Your task to perform on an android device: toggle priority inbox in the gmail app Image 0: 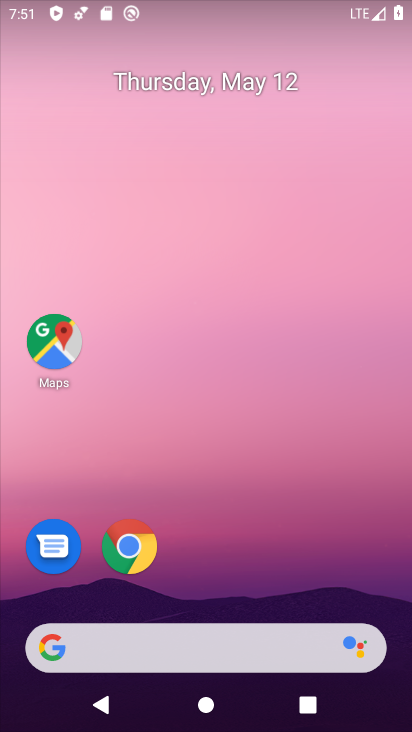
Step 0: drag from (250, 579) to (160, 5)
Your task to perform on an android device: toggle priority inbox in the gmail app Image 1: 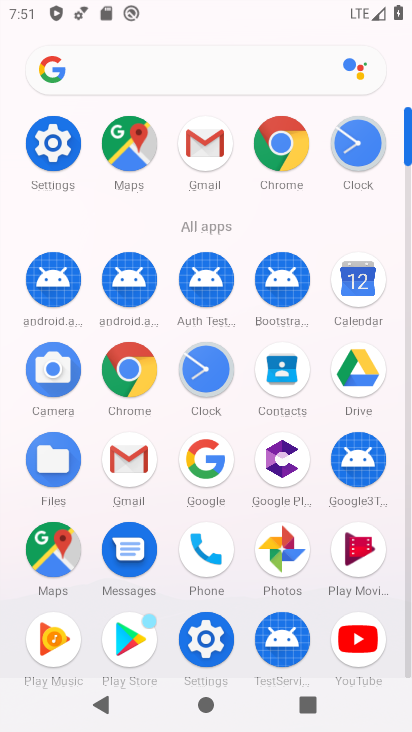
Step 1: click (193, 152)
Your task to perform on an android device: toggle priority inbox in the gmail app Image 2: 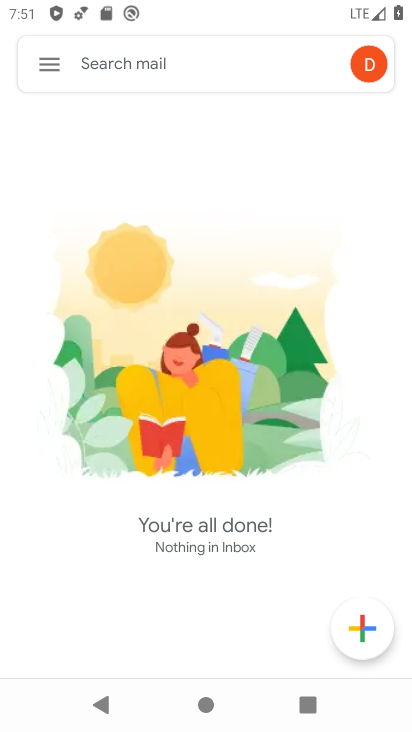
Step 2: click (70, 68)
Your task to perform on an android device: toggle priority inbox in the gmail app Image 3: 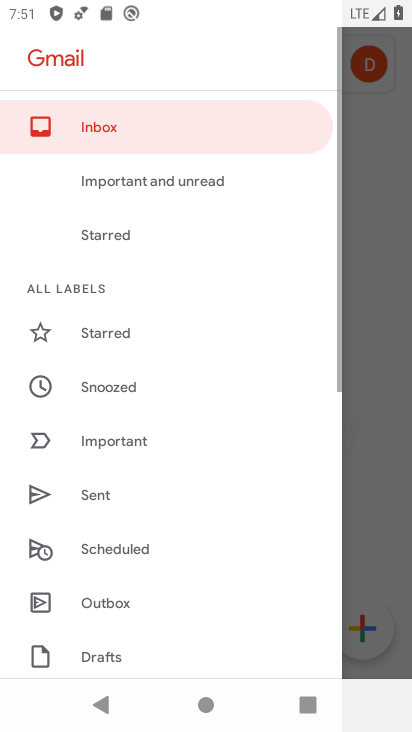
Step 3: drag from (133, 620) to (248, 83)
Your task to perform on an android device: toggle priority inbox in the gmail app Image 4: 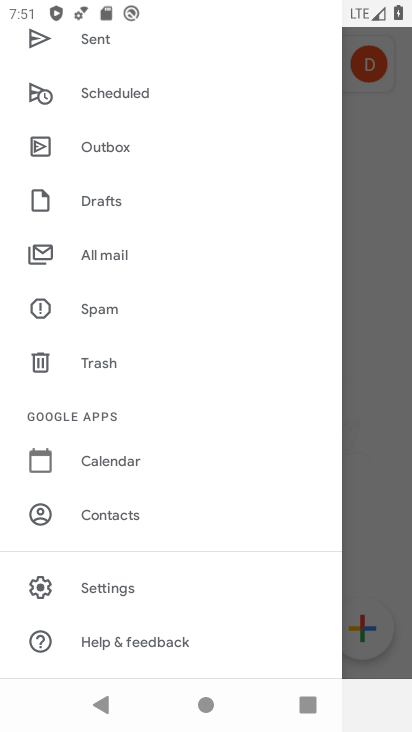
Step 4: click (103, 584)
Your task to perform on an android device: toggle priority inbox in the gmail app Image 5: 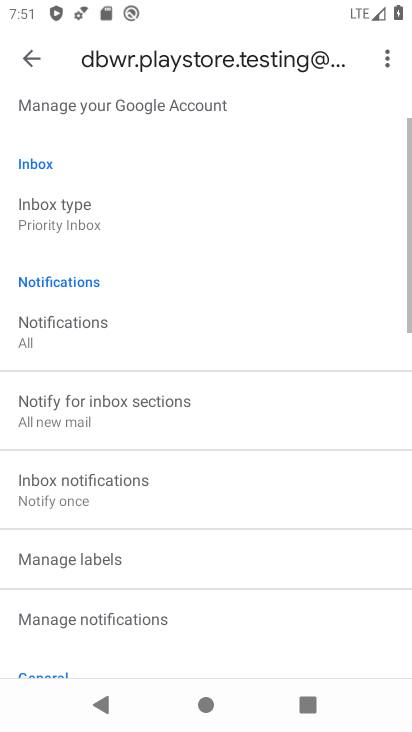
Step 5: click (62, 220)
Your task to perform on an android device: toggle priority inbox in the gmail app Image 6: 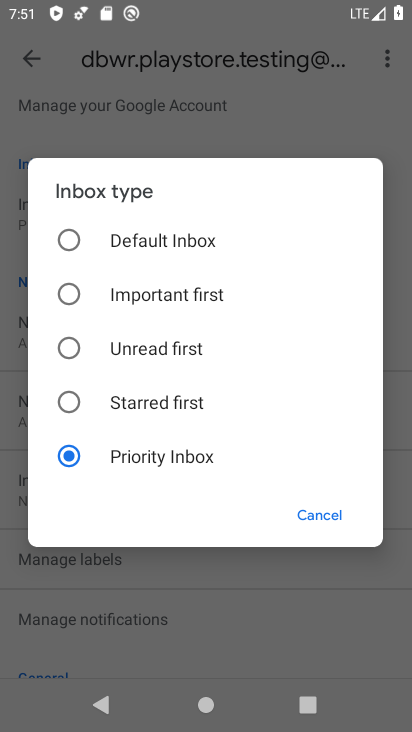
Step 6: click (75, 454)
Your task to perform on an android device: toggle priority inbox in the gmail app Image 7: 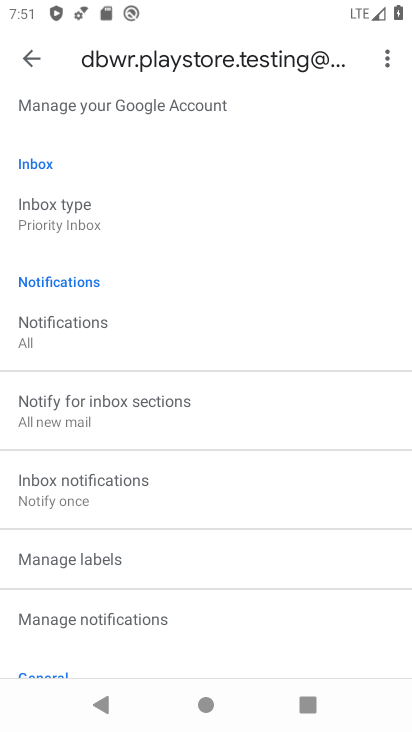
Step 7: task complete